Your task to perform on an android device: set the timer Image 0: 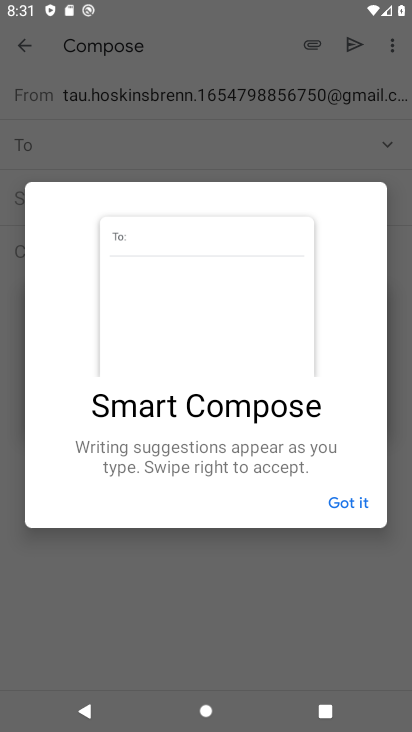
Step 0: press home button
Your task to perform on an android device: set the timer Image 1: 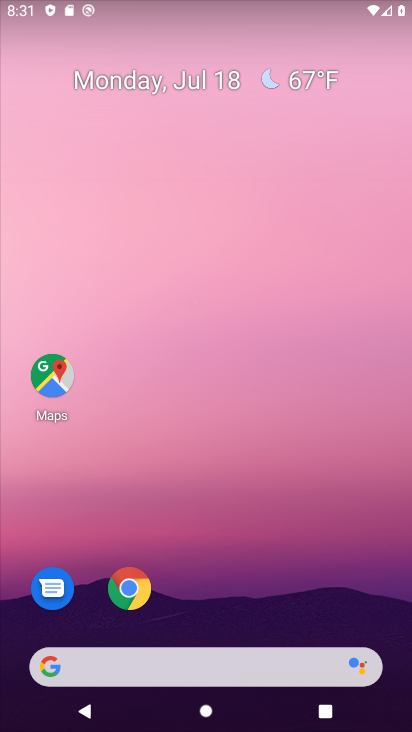
Step 1: drag from (387, 632) to (298, 118)
Your task to perform on an android device: set the timer Image 2: 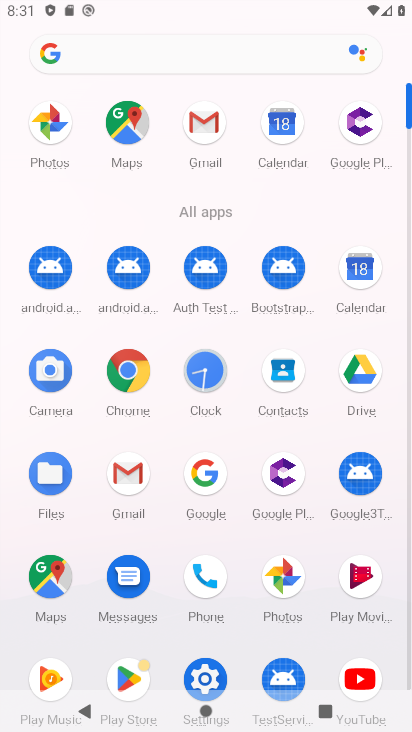
Step 2: click (204, 368)
Your task to perform on an android device: set the timer Image 3: 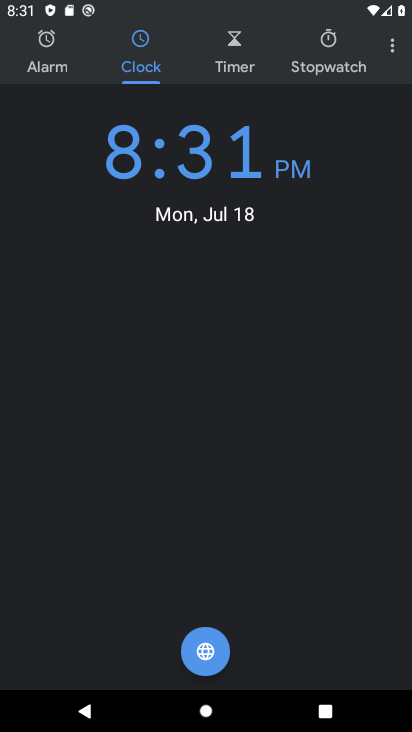
Step 3: click (236, 41)
Your task to perform on an android device: set the timer Image 4: 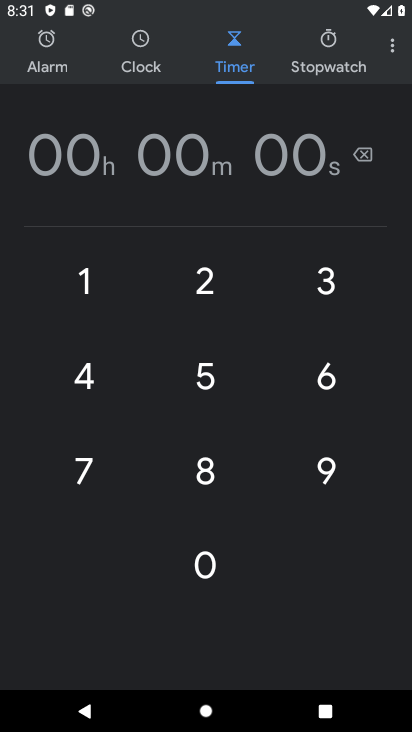
Step 4: click (83, 294)
Your task to perform on an android device: set the timer Image 5: 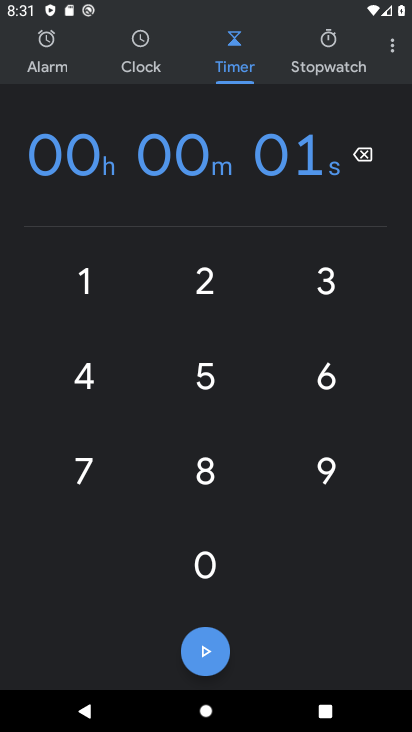
Step 5: click (326, 282)
Your task to perform on an android device: set the timer Image 6: 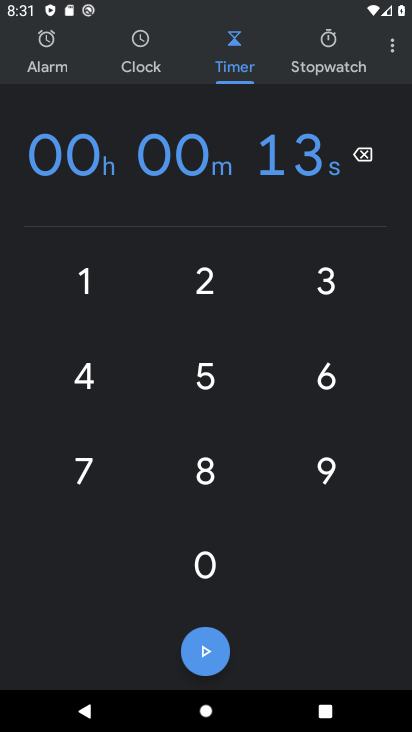
Step 6: click (206, 570)
Your task to perform on an android device: set the timer Image 7: 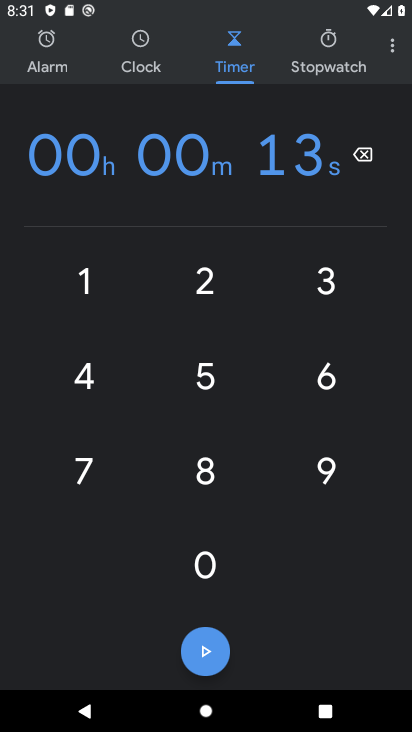
Step 7: click (206, 570)
Your task to perform on an android device: set the timer Image 8: 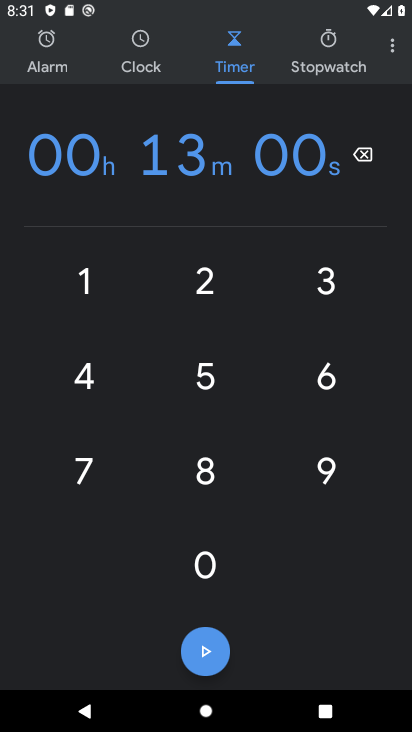
Step 8: click (206, 570)
Your task to perform on an android device: set the timer Image 9: 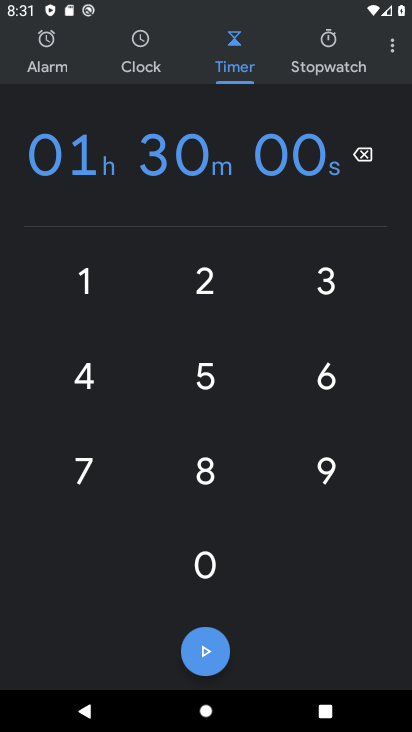
Step 9: task complete